Your task to perform on an android device: Go to eBay Image 0: 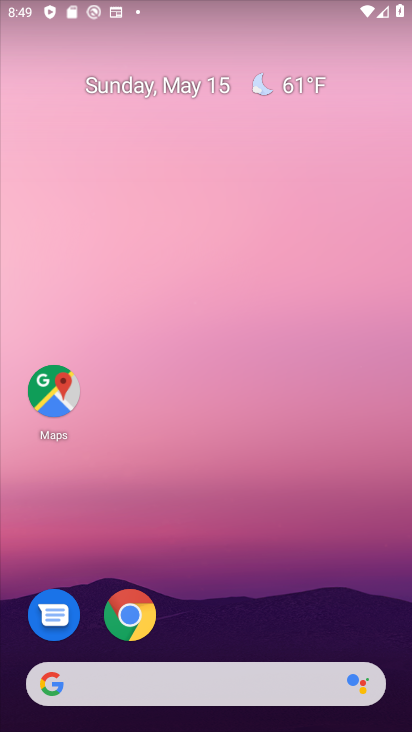
Step 0: drag from (239, 580) to (265, 62)
Your task to perform on an android device: Go to eBay Image 1: 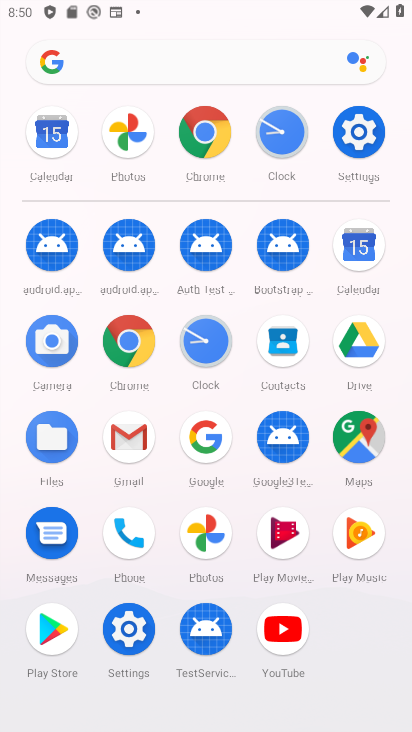
Step 1: click (129, 335)
Your task to perform on an android device: Go to eBay Image 2: 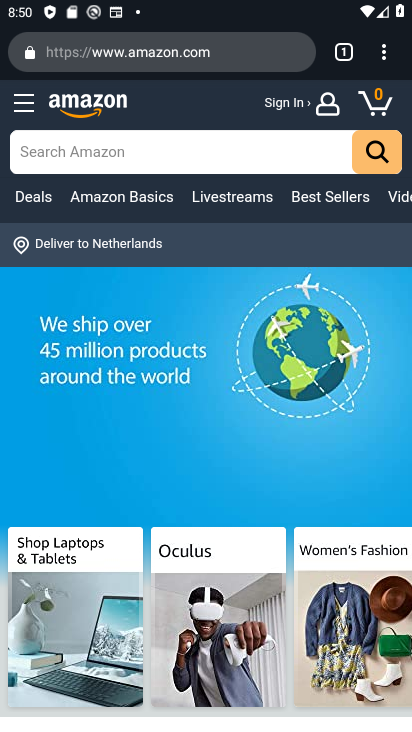
Step 2: click (194, 44)
Your task to perform on an android device: Go to eBay Image 3: 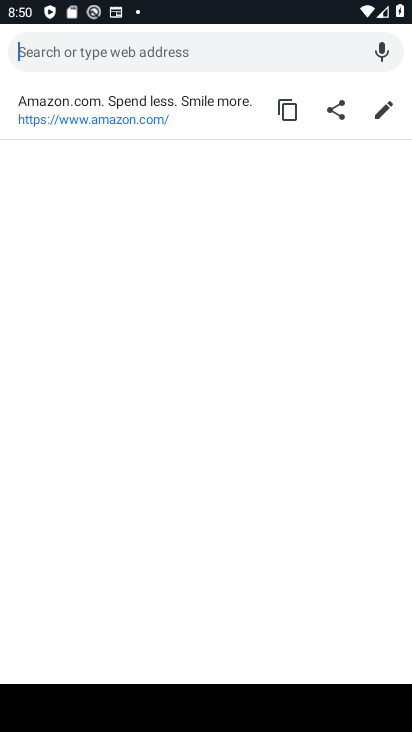
Step 3: type " eBay"
Your task to perform on an android device: Go to eBay Image 4: 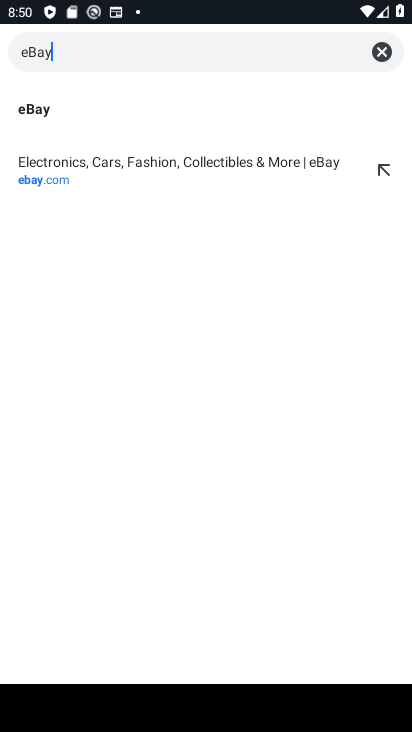
Step 4: type ""
Your task to perform on an android device: Go to eBay Image 5: 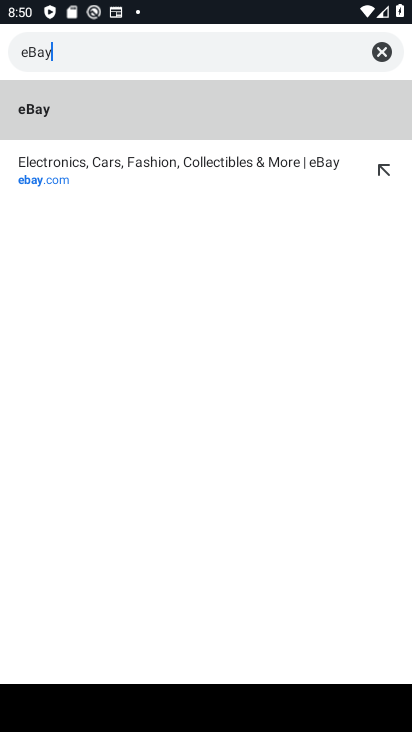
Step 5: click (115, 112)
Your task to perform on an android device: Go to eBay Image 6: 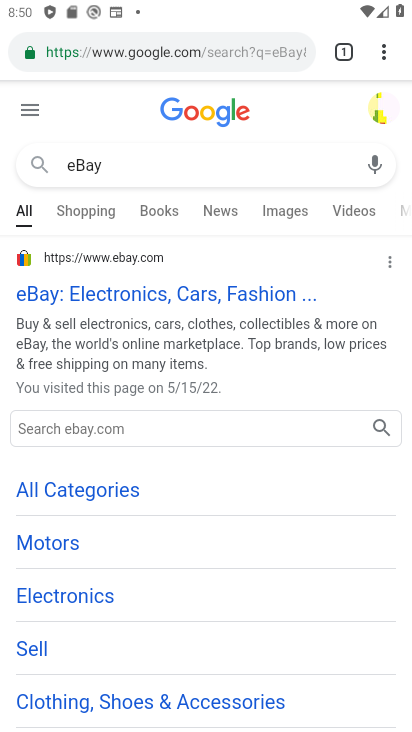
Step 6: click (137, 286)
Your task to perform on an android device: Go to eBay Image 7: 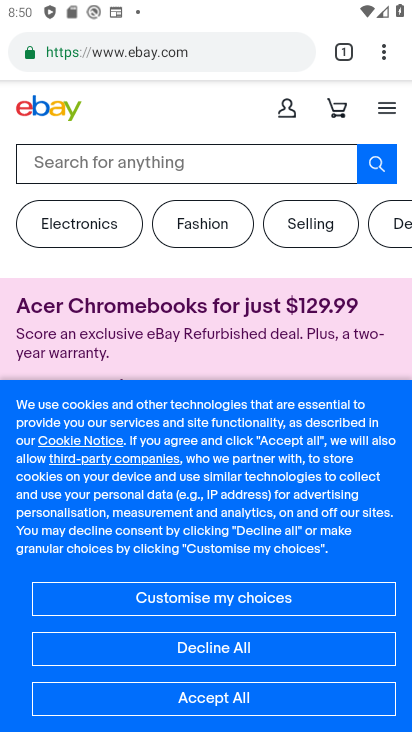
Step 7: task complete